Your task to perform on an android device: check the backup settings in the google photos Image 0: 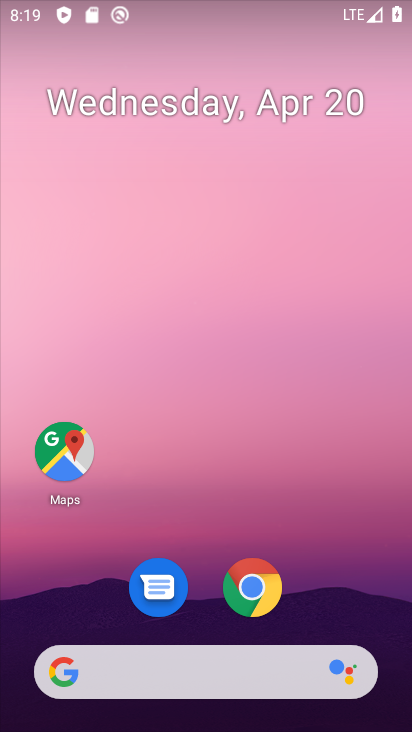
Step 0: drag from (360, 579) to (370, 174)
Your task to perform on an android device: check the backup settings in the google photos Image 1: 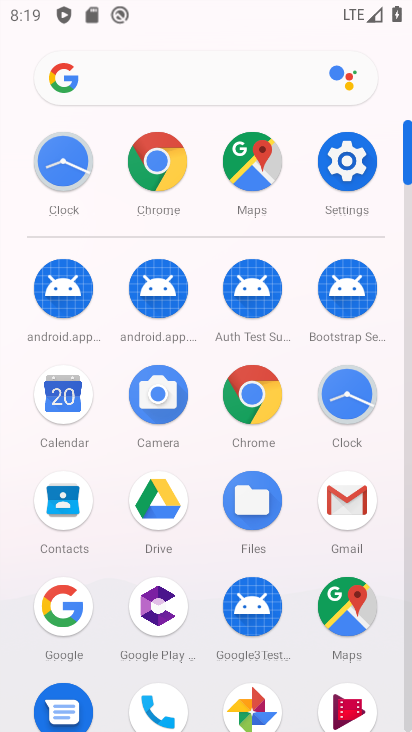
Step 1: drag from (387, 547) to (393, 233)
Your task to perform on an android device: check the backup settings in the google photos Image 2: 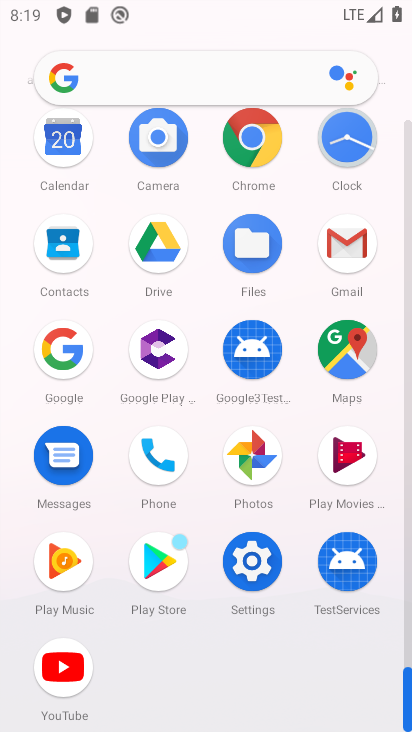
Step 2: click (253, 463)
Your task to perform on an android device: check the backup settings in the google photos Image 3: 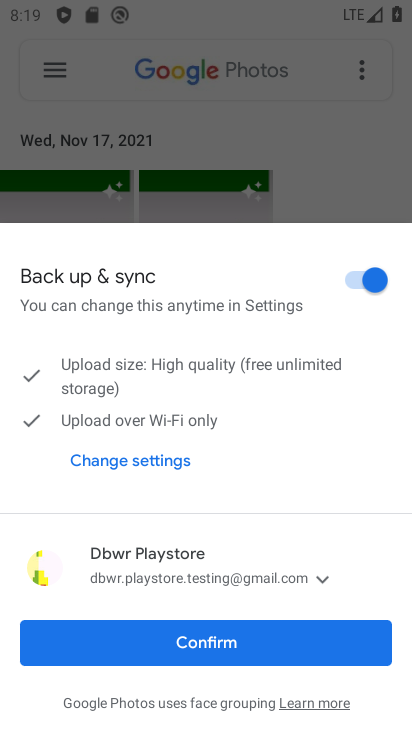
Step 3: click (271, 635)
Your task to perform on an android device: check the backup settings in the google photos Image 4: 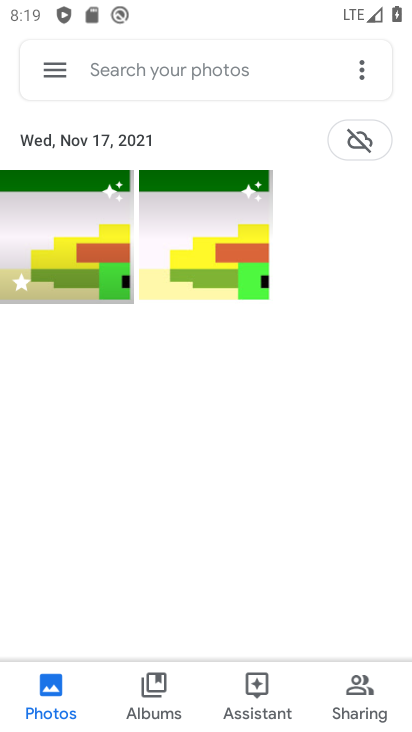
Step 4: click (55, 72)
Your task to perform on an android device: check the backup settings in the google photos Image 5: 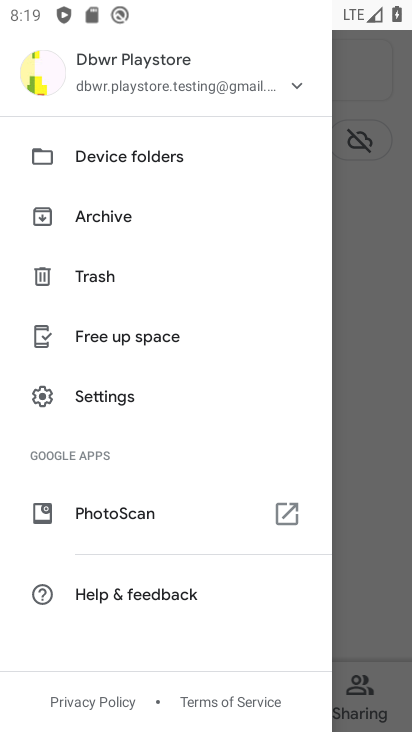
Step 5: drag from (207, 530) to (206, 355)
Your task to perform on an android device: check the backup settings in the google photos Image 6: 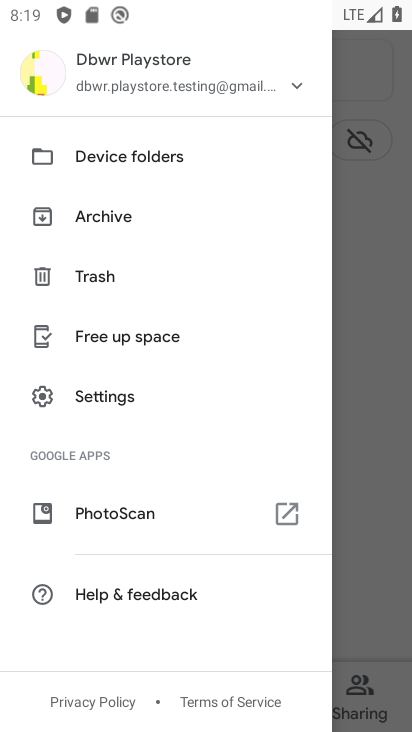
Step 6: click (103, 392)
Your task to perform on an android device: check the backup settings in the google photos Image 7: 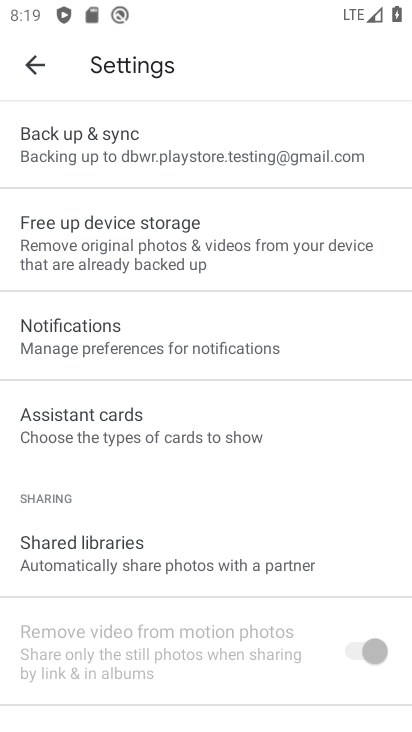
Step 7: drag from (310, 474) to (332, 297)
Your task to perform on an android device: check the backup settings in the google photos Image 8: 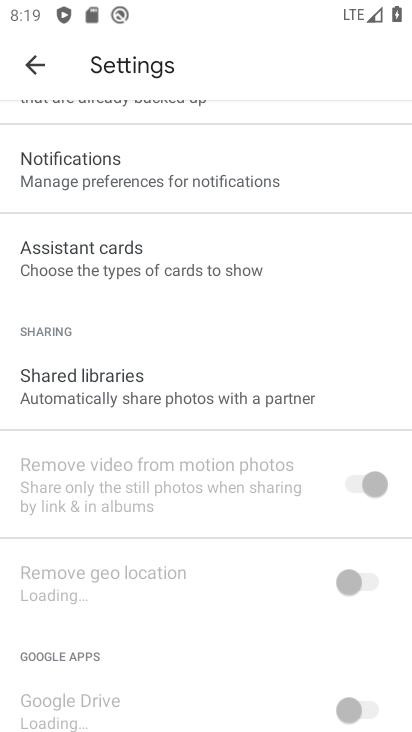
Step 8: drag from (270, 589) to (285, 315)
Your task to perform on an android device: check the backup settings in the google photos Image 9: 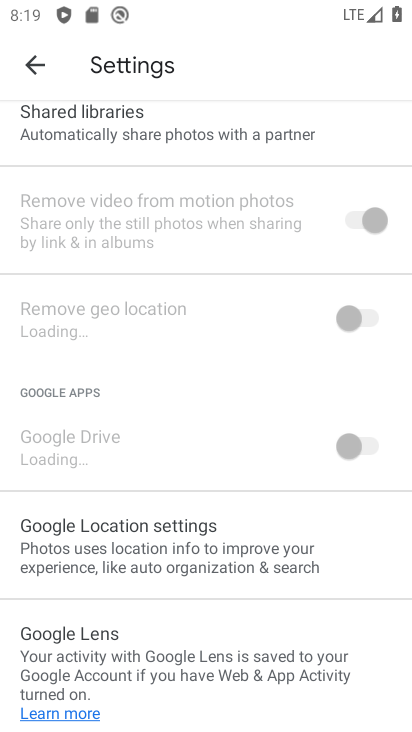
Step 9: drag from (256, 599) to (260, 376)
Your task to perform on an android device: check the backup settings in the google photos Image 10: 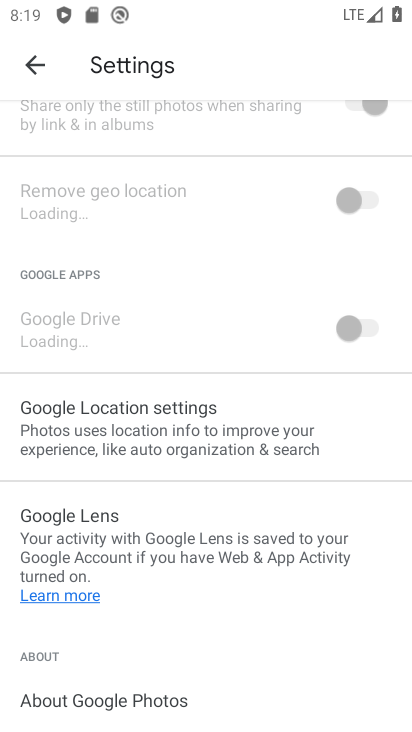
Step 10: drag from (269, 287) to (274, 475)
Your task to perform on an android device: check the backup settings in the google photos Image 11: 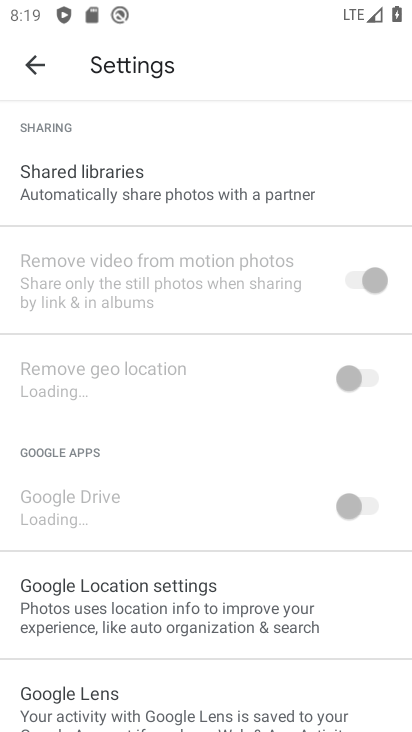
Step 11: drag from (290, 240) to (276, 467)
Your task to perform on an android device: check the backup settings in the google photos Image 12: 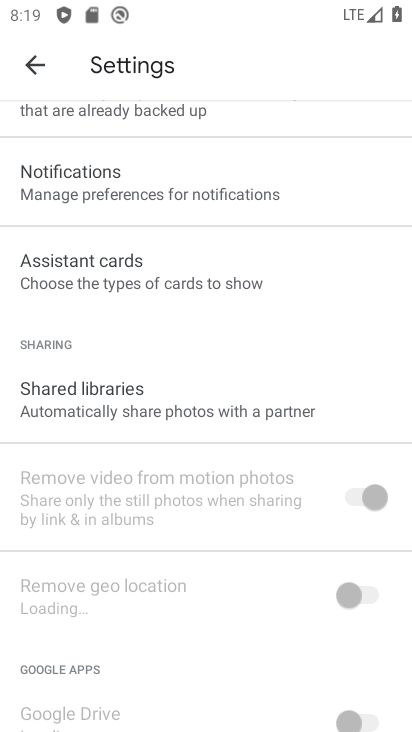
Step 12: drag from (305, 196) to (309, 402)
Your task to perform on an android device: check the backup settings in the google photos Image 13: 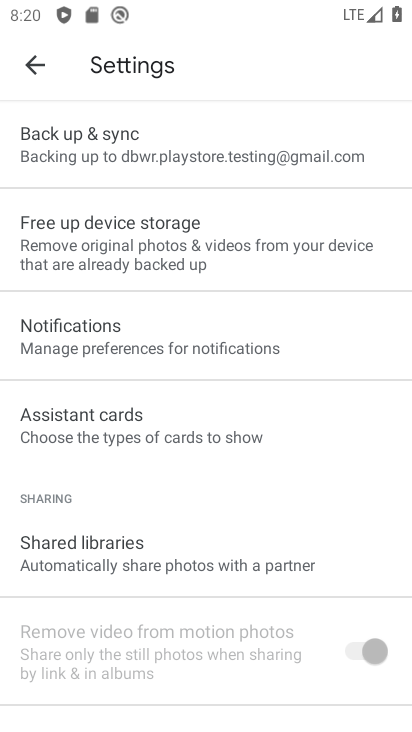
Step 13: drag from (303, 161) to (304, 319)
Your task to perform on an android device: check the backup settings in the google photos Image 14: 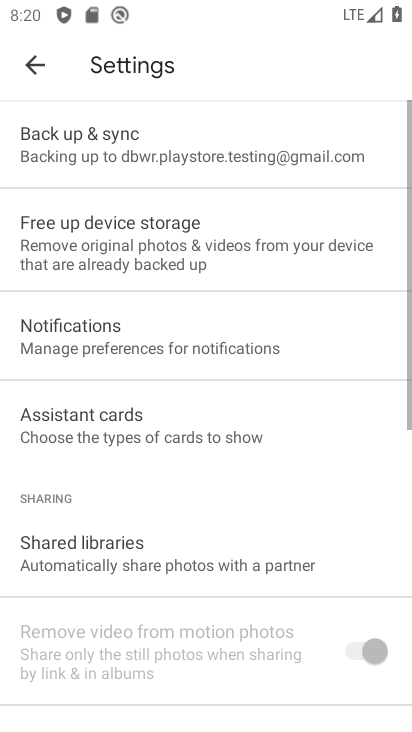
Step 14: click (266, 151)
Your task to perform on an android device: check the backup settings in the google photos Image 15: 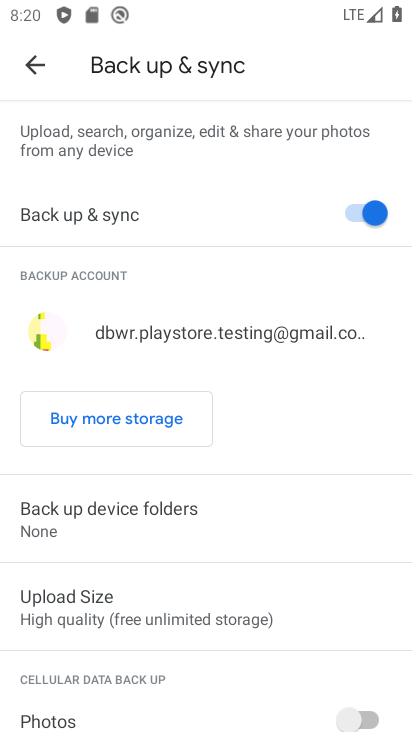
Step 15: task complete